Your task to perform on an android device: Open wifi settings Image 0: 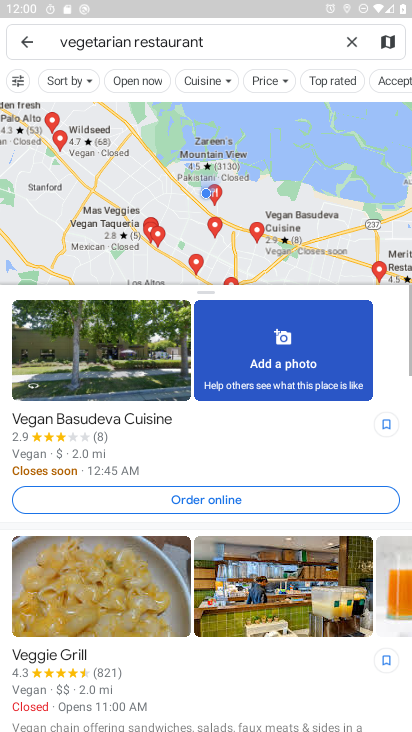
Step 0: press home button
Your task to perform on an android device: Open wifi settings Image 1: 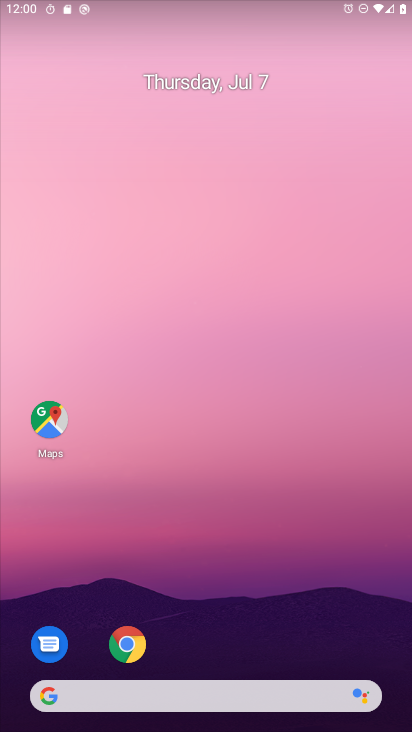
Step 1: drag from (228, 620) to (256, 143)
Your task to perform on an android device: Open wifi settings Image 2: 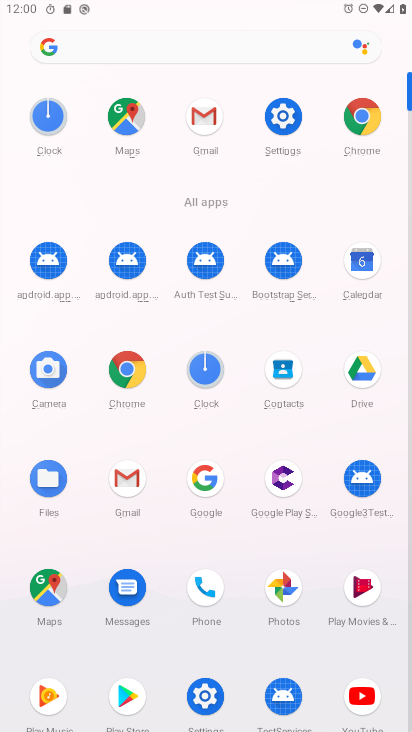
Step 2: click (278, 114)
Your task to perform on an android device: Open wifi settings Image 3: 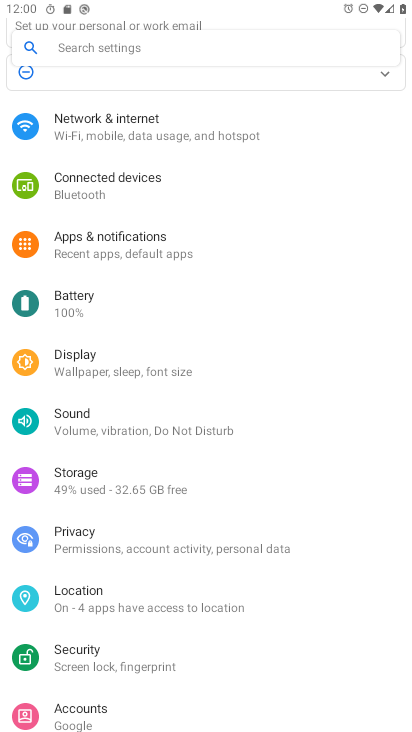
Step 3: click (123, 124)
Your task to perform on an android device: Open wifi settings Image 4: 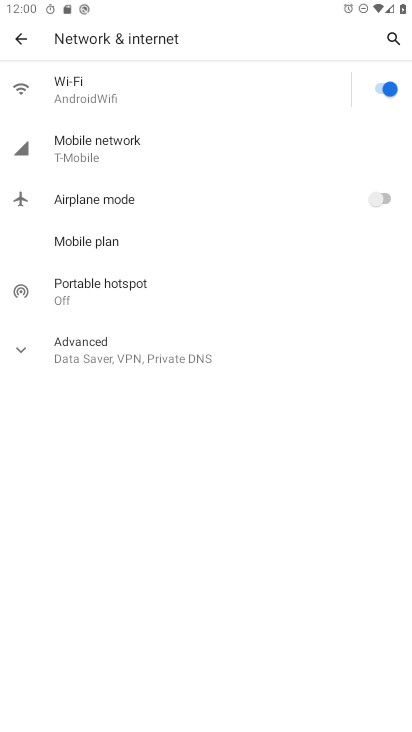
Step 4: click (174, 88)
Your task to perform on an android device: Open wifi settings Image 5: 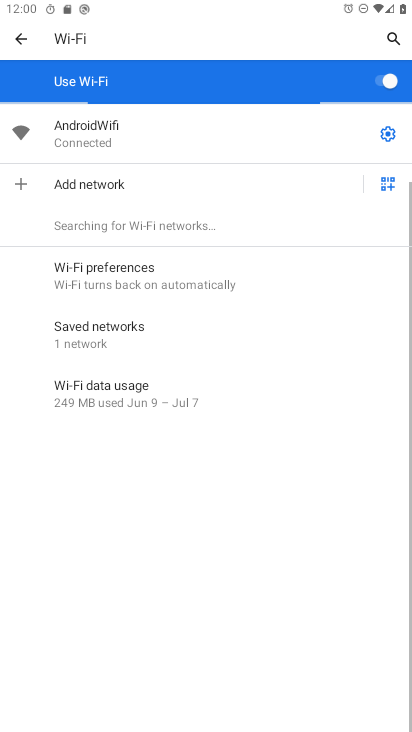
Step 5: click (386, 131)
Your task to perform on an android device: Open wifi settings Image 6: 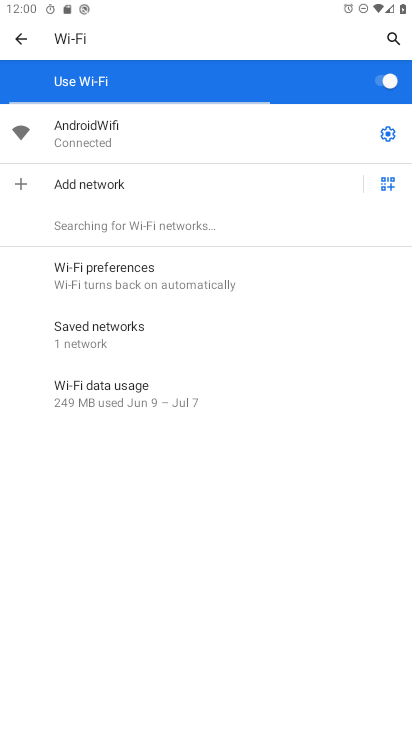
Step 6: click (387, 131)
Your task to perform on an android device: Open wifi settings Image 7: 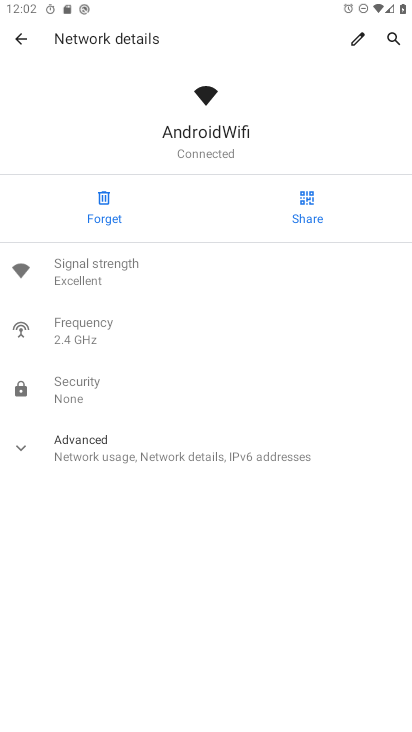
Step 7: task complete